Your task to perform on an android device: Turn off the flashlight Image 0: 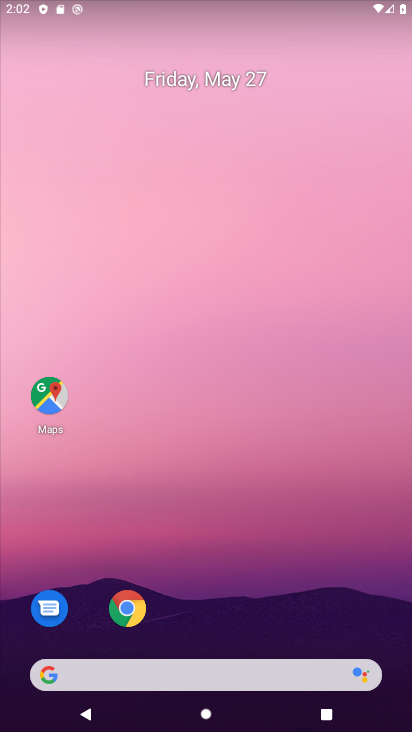
Step 0: drag from (250, 25) to (254, 561)
Your task to perform on an android device: Turn off the flashlight Image 1: 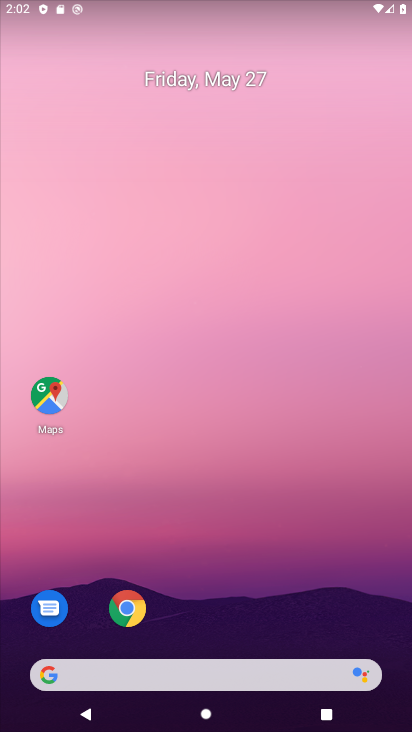
Step 1: task complete